Your task to perform on an android device: toggle data saver in the chrome app Image 0: 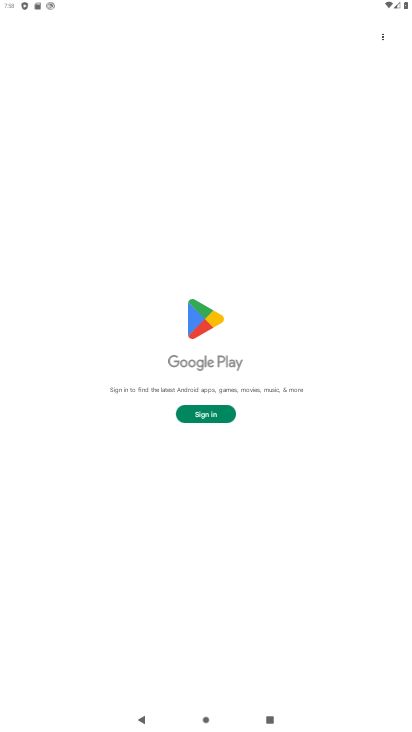
Step 0: press back button
Your task to perform on an android device: toggle data saver in the chrome app Image 1: 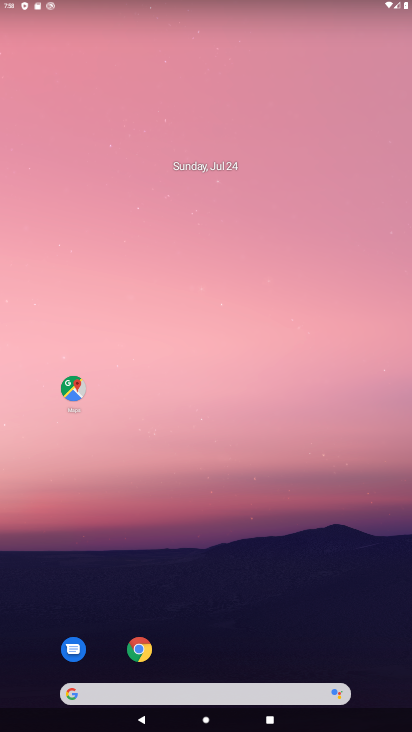
Step 1: drag from (192, 665) to (94, 39)
Your task to perform on an android device: toggle data saver in the chrome app Image 2: 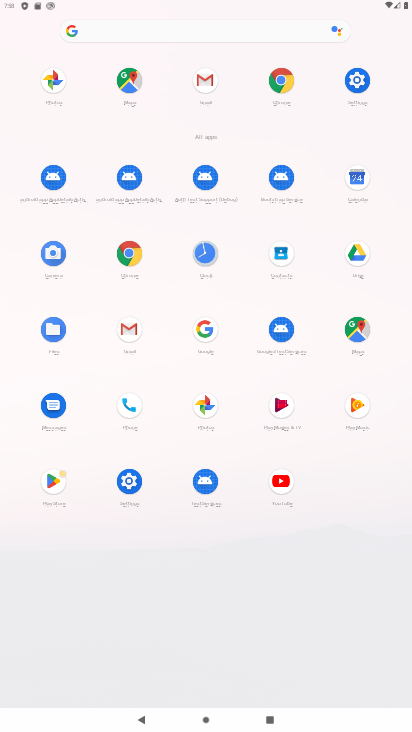
Step 2: click (124, 258)
Your task to perform on an android device: toggle data saver in the chrome app Image 3: 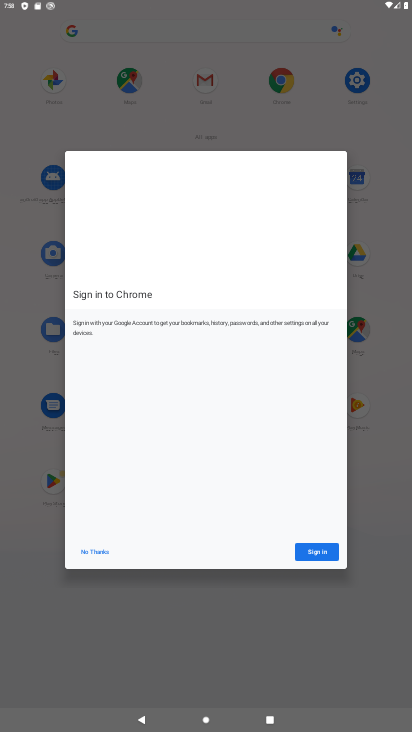
Step 3: click (303, 553)
Your task to perform on an android device: toggle data saver in the chrome app Image 4: 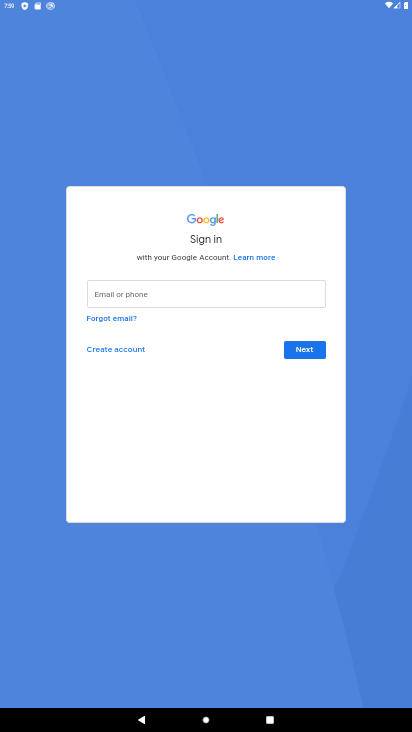
Step 4: task complete